Your task to perform on an android device: Open calendar and show me the second week of next month Image 0: 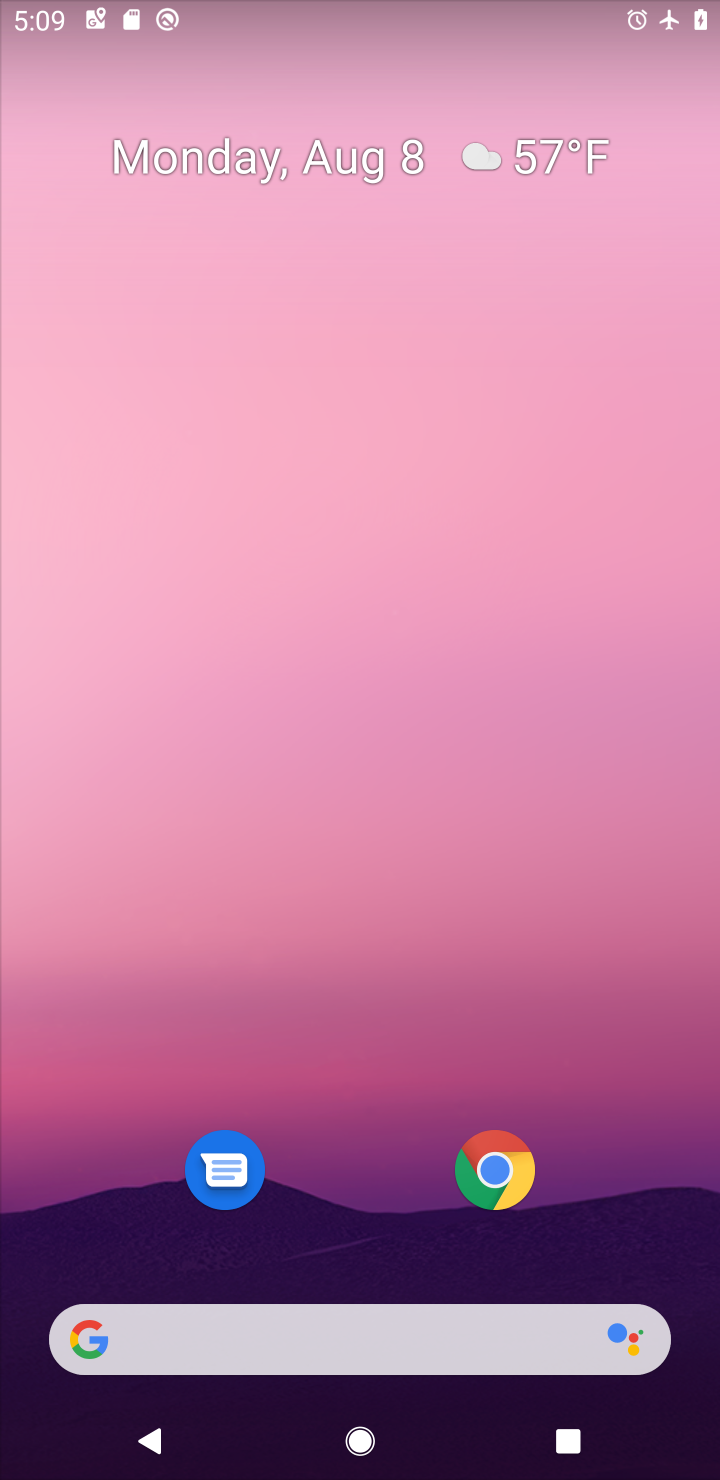
Step 0: drag from (380, 1203) to (435, 219)
Your task to perform on an android device: Open calendar and show me the second week of next month Image 1: 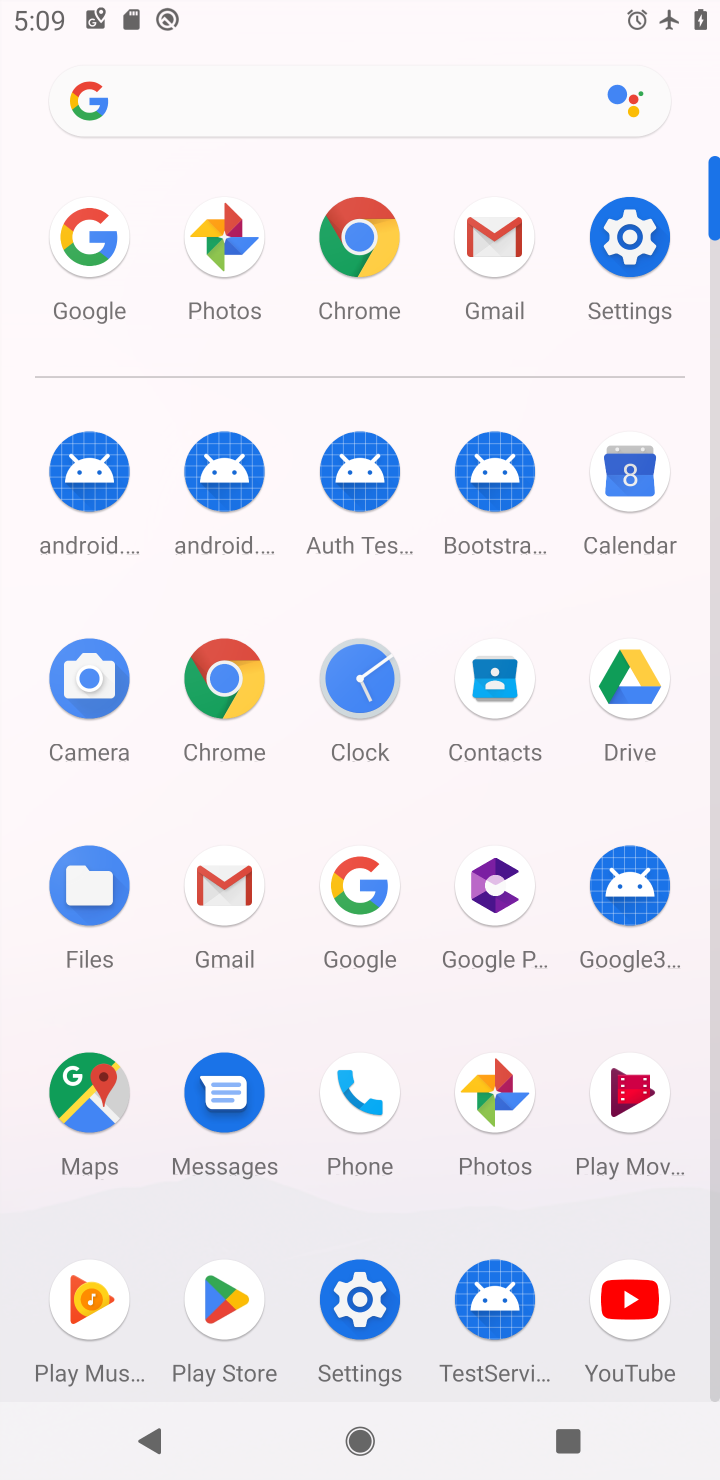
Step 1: click (629, 526)
Your task to perform on an android device: Open calendar and show me the second week of next month Image 2: 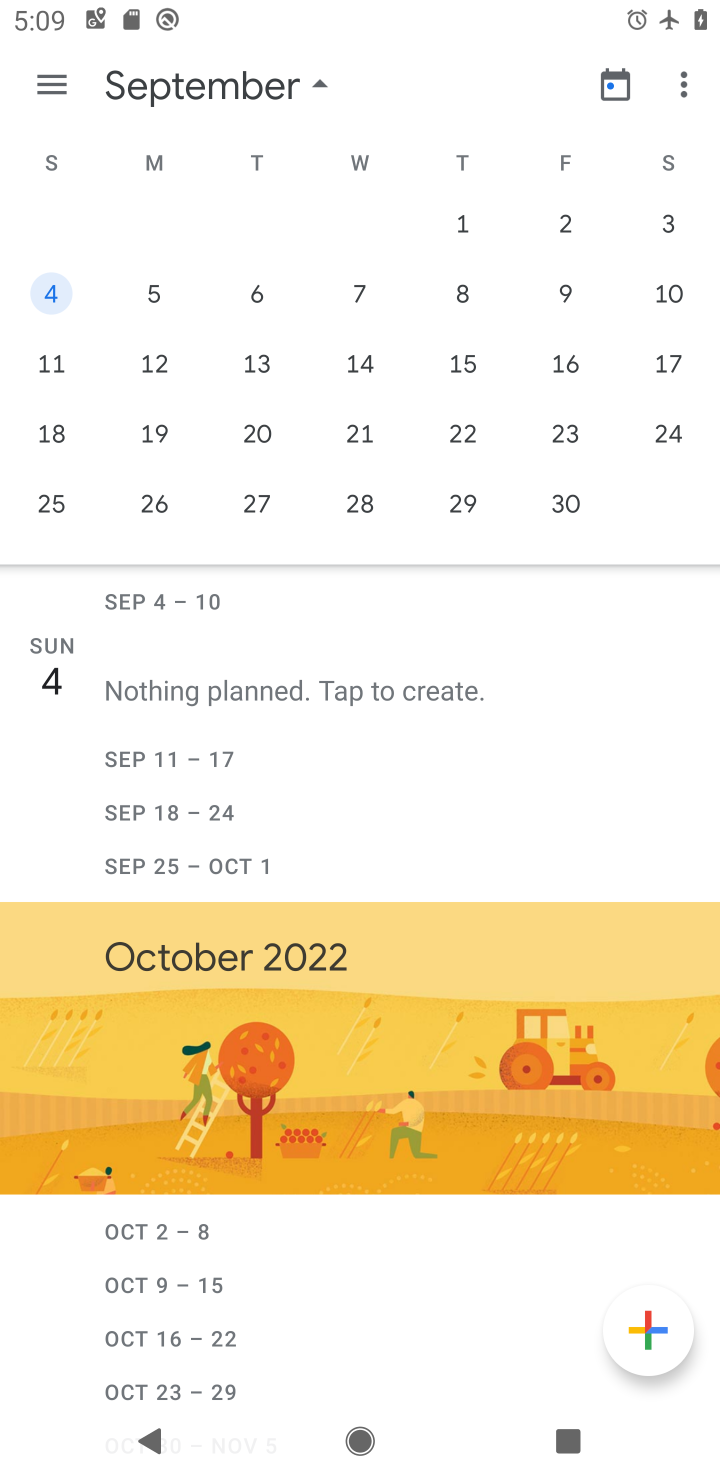
Step 2: click (153, 305)
Your task to perform on an android device: Open calendar and show me the second week of next month Image 3: 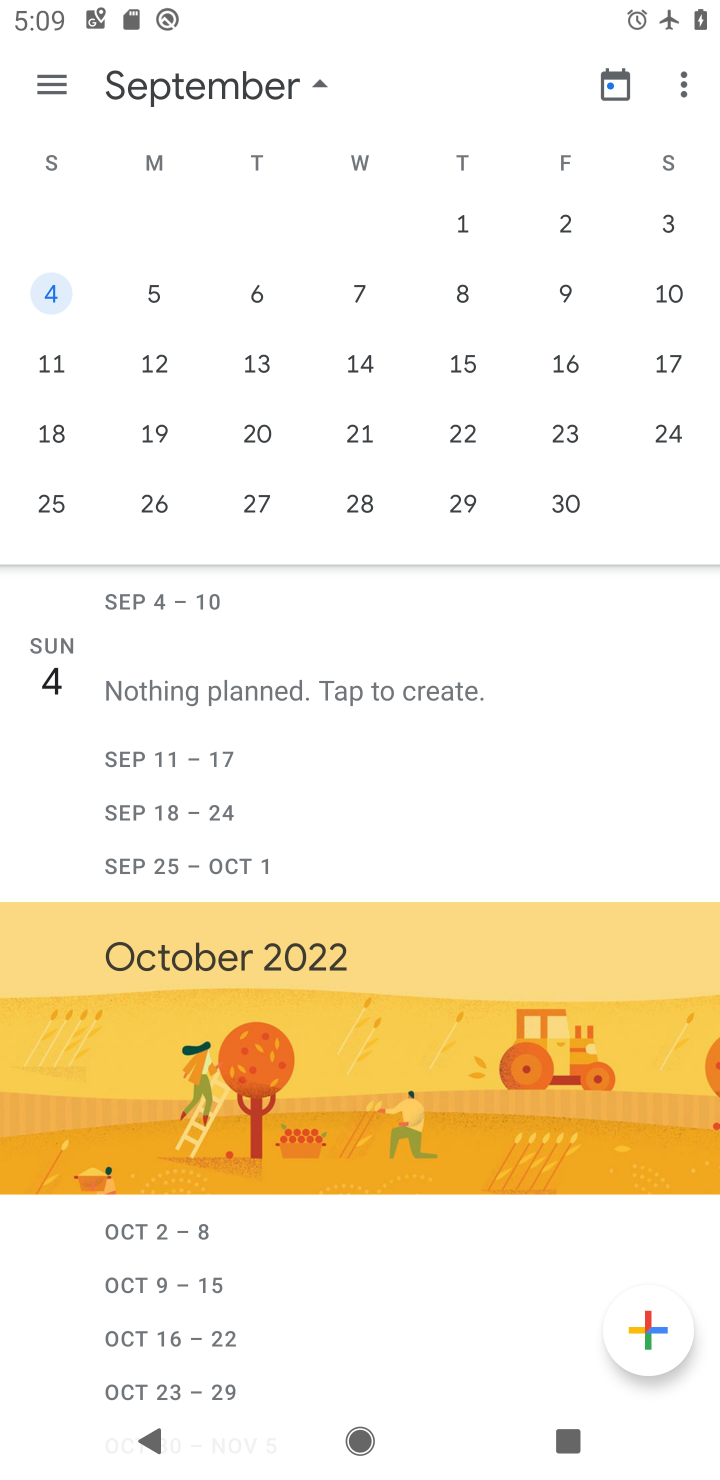
Step 3: click (241, 312)
Your task to perform on an android device: Open calendar and show me the second week of next month Image 4: 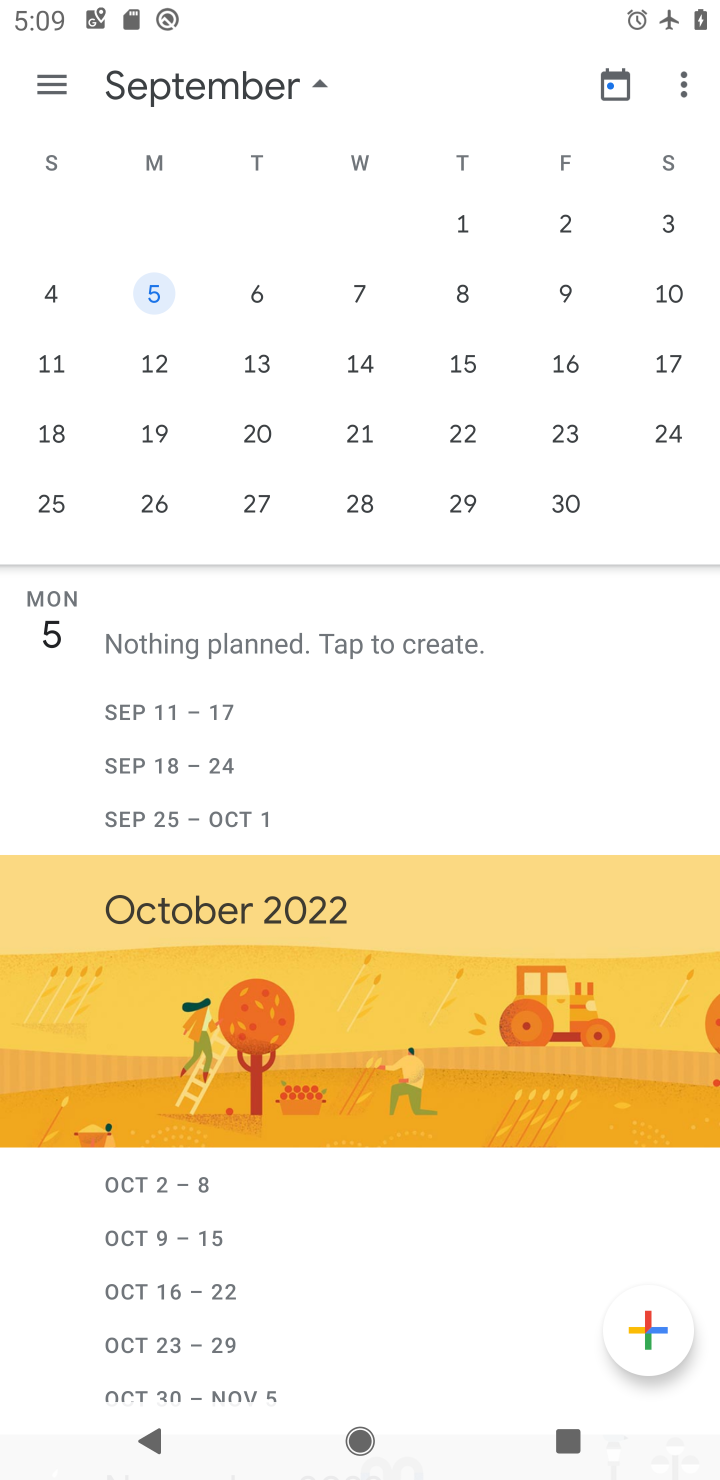
Step 4: task complete